Your task to perform on an android device: turn on wifi Image 0: 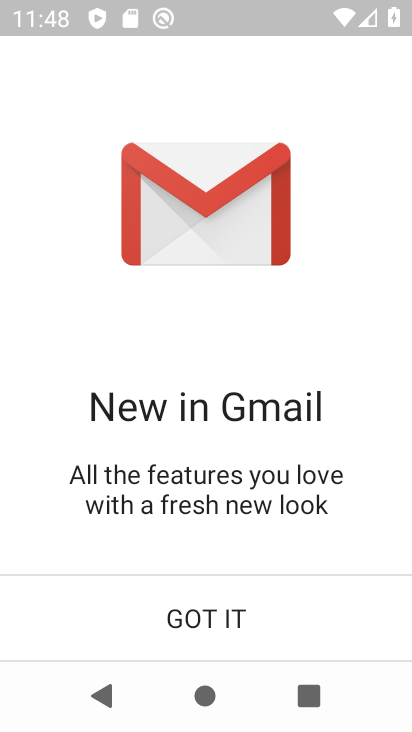
Step 0: click (267, 498)
Your task to perform on an android device: turn on wifi Image 1: 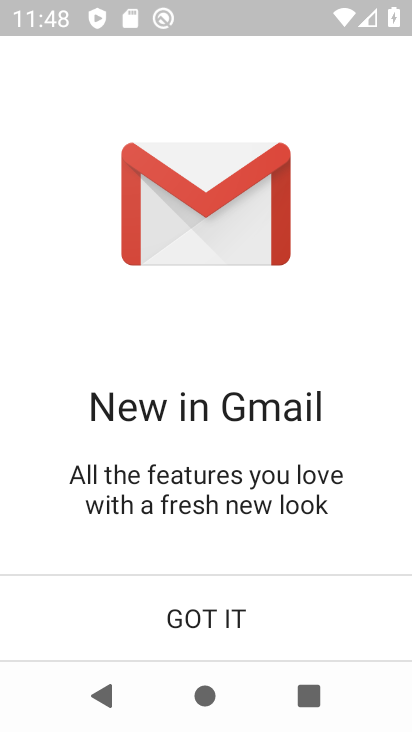
Step 1: task complete